Your task to perform on an android device: delete a single message in the gmail app Image 0: 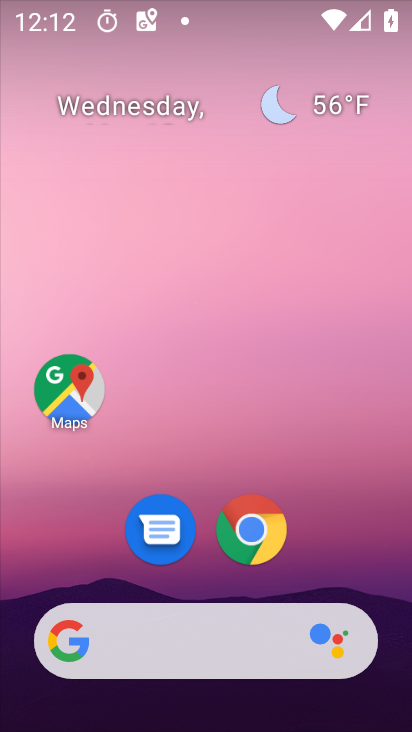
Step 0: drag from (171, 555) to (187, 114)
Your task to perform on an android device: delete a single message in the gmail app Image 1: 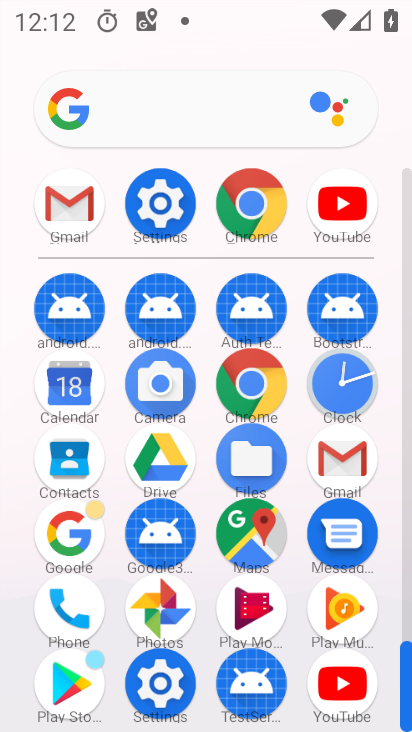
Step 1: click (187, 114)
Your task to perform on an android device: delete a single message in the gmail app Image 2: 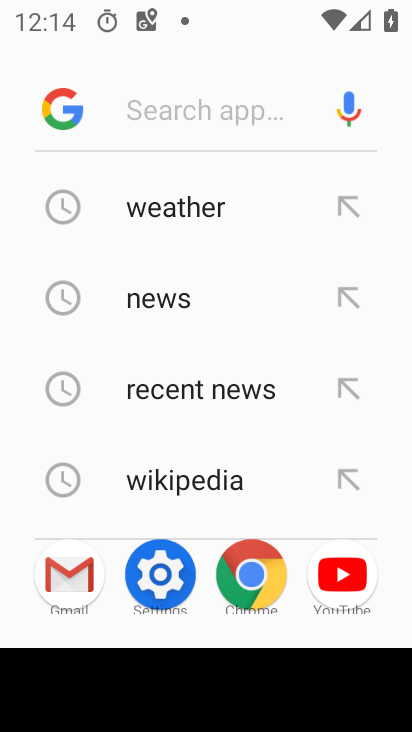
Step 2: press home button
Your task to perform on an android device: delete a single message in the gmail app Image 3: 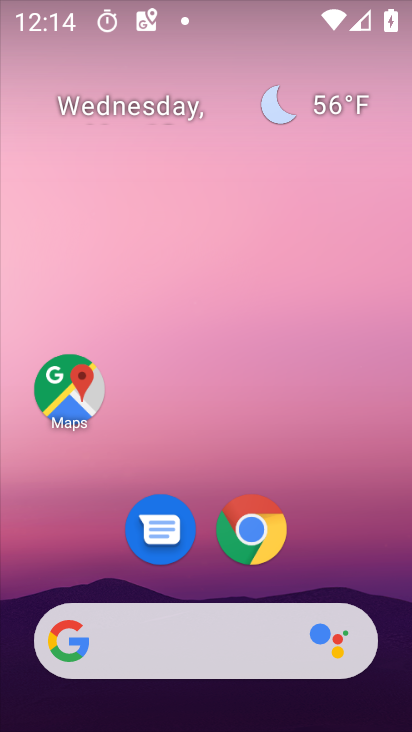
Step 3: drag from (210, 584) to (259, 32)
Your task to perform on an android device: delete a single message in the gmail app Image 4: 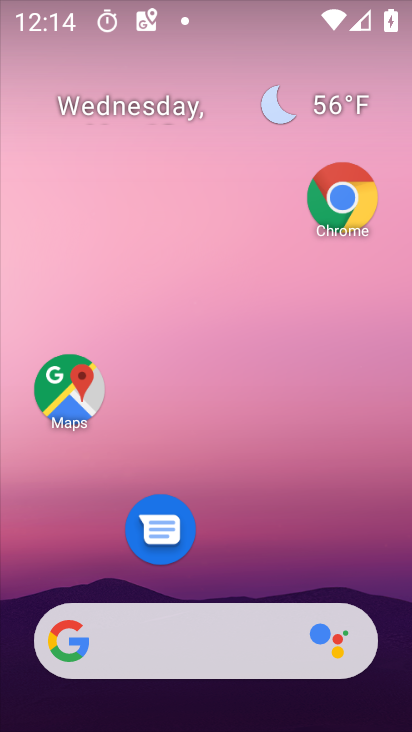
Step 4: drag from (255, 513) to (212, 130)
Your task to perform on an android device: delete a single message in the gmail app Image 5: 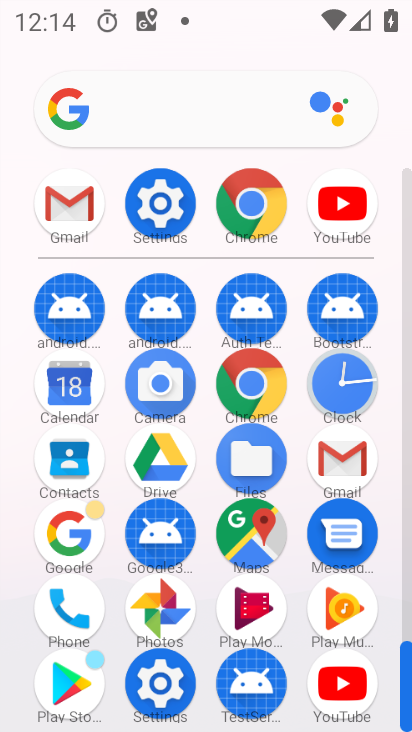
Step 5: click (345, 476)
Your task to perform on an android device: delete a single message in the gmail app Image 6: 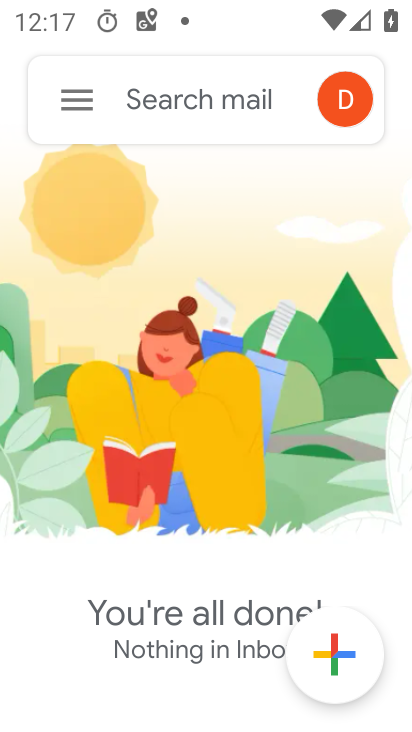
Step 6: task complete